Your task to perform on an android device: What's the weather going to be tomorrow? Image 0: 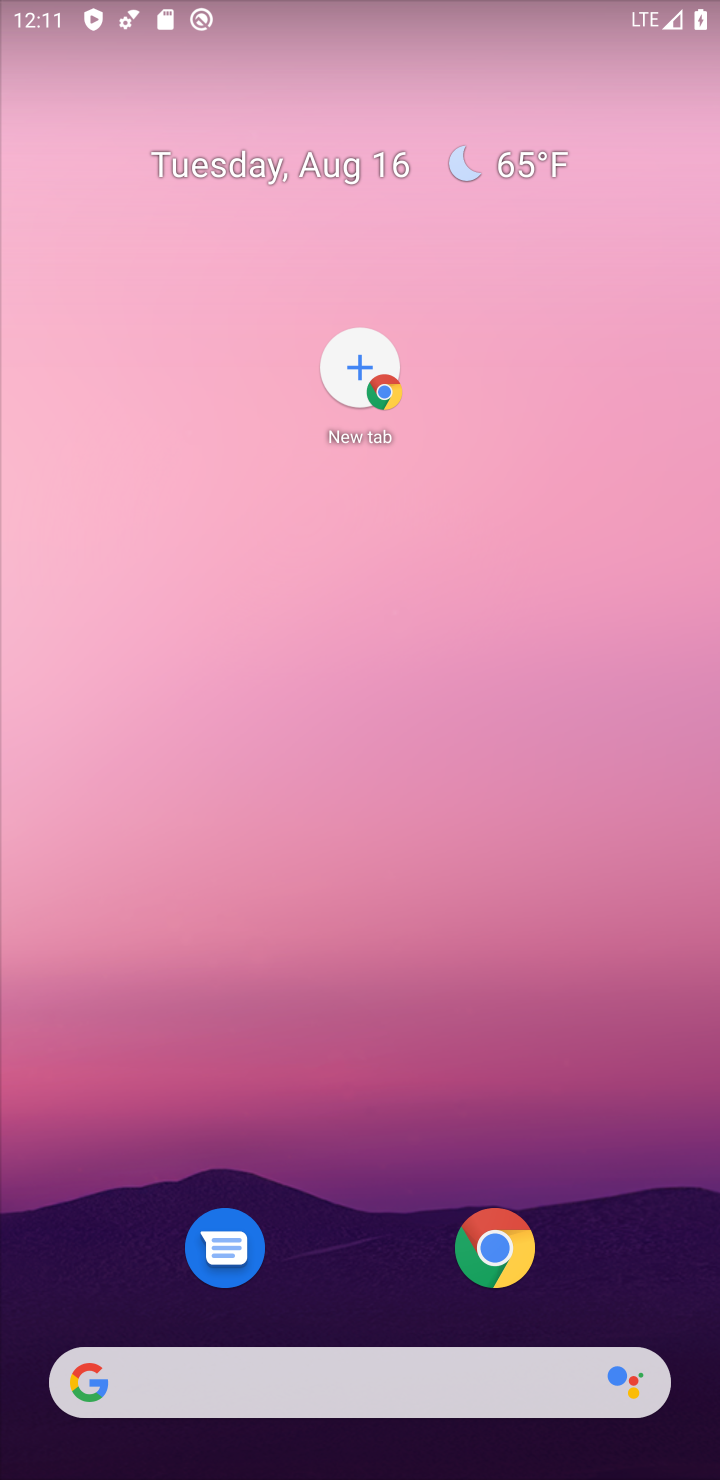
Step 0: drag from (391, 1336) to (448, 130)
Your task to perform on an android device: What's the weather going to be tomorrow? Image 1: 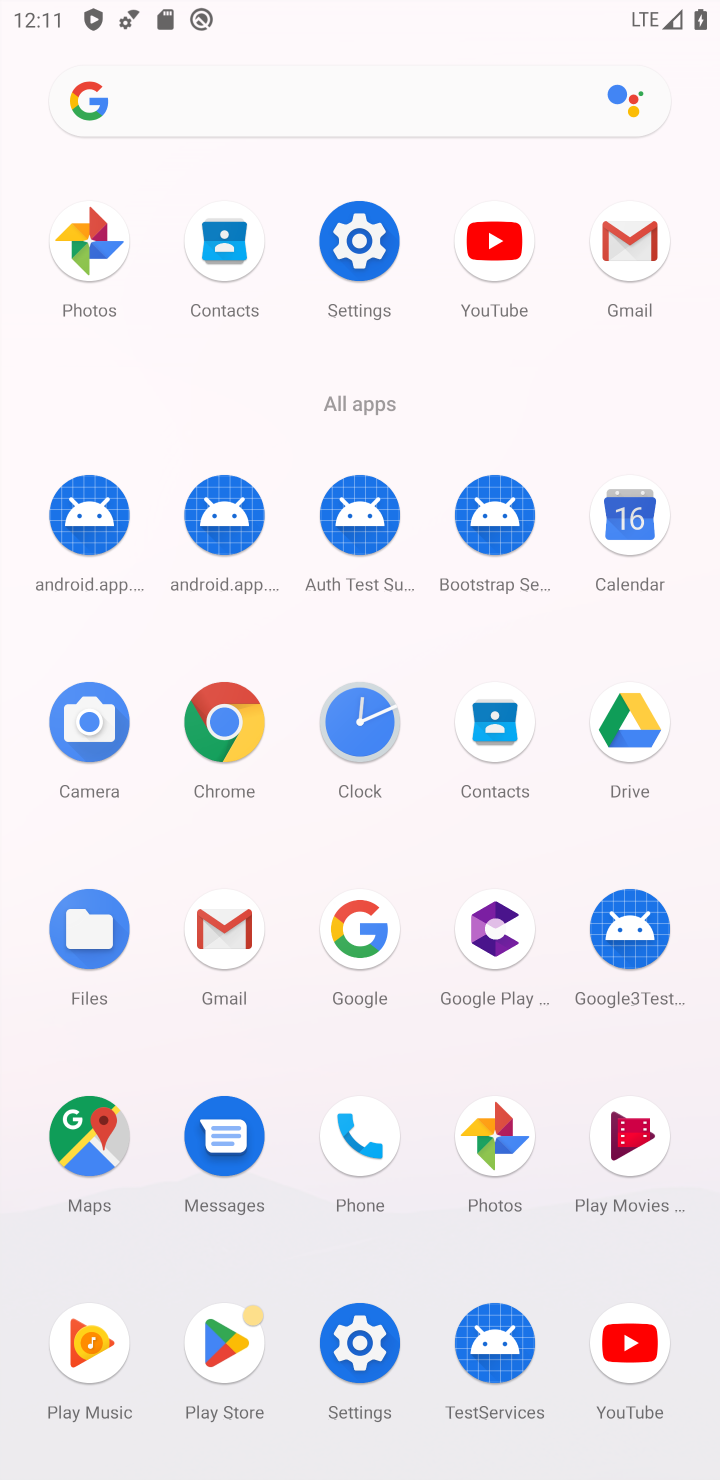
Step 1: click (360, 185)
Your task to perform on an android device: What's the weather going to be tomorrow? Image 2: 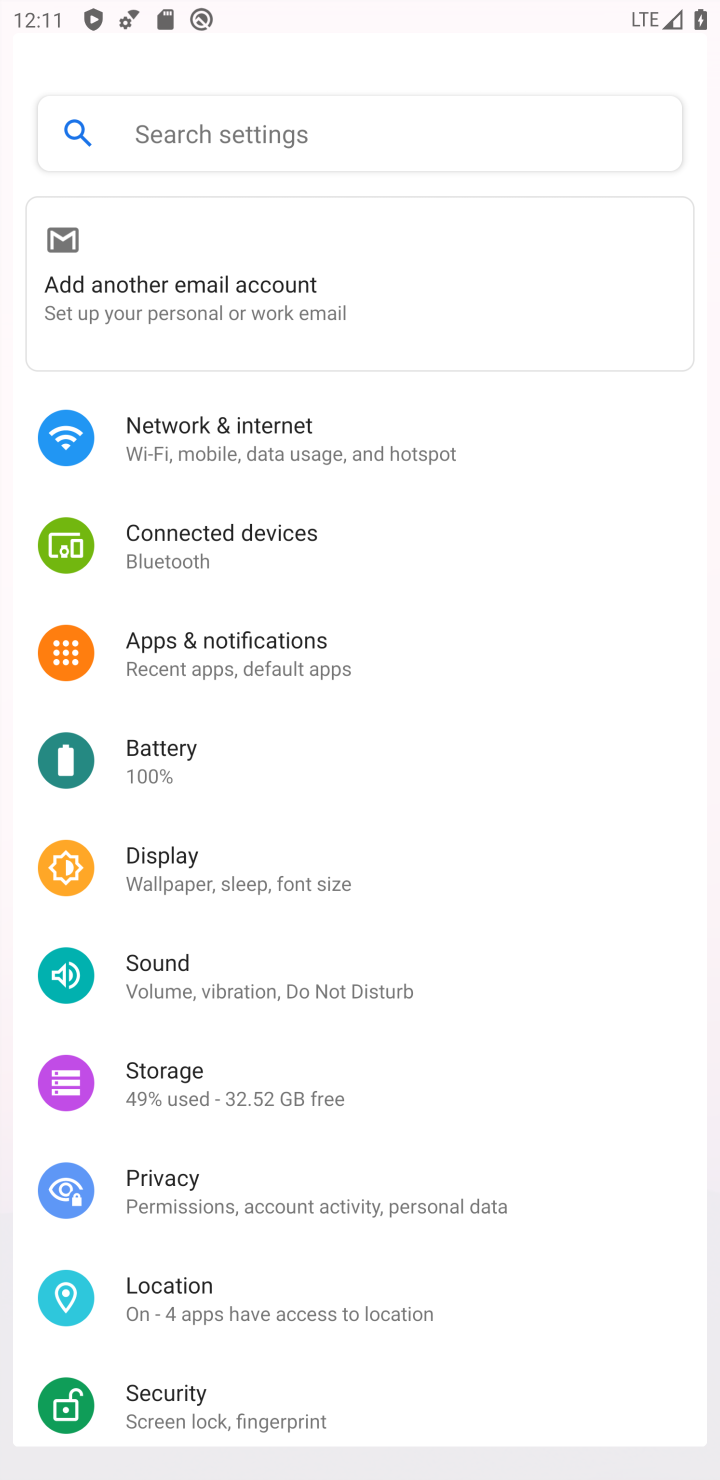
Step 2: click (289, 124)
Your task to perform on an android device: What's the weather going to be tomorrow? Image 3: 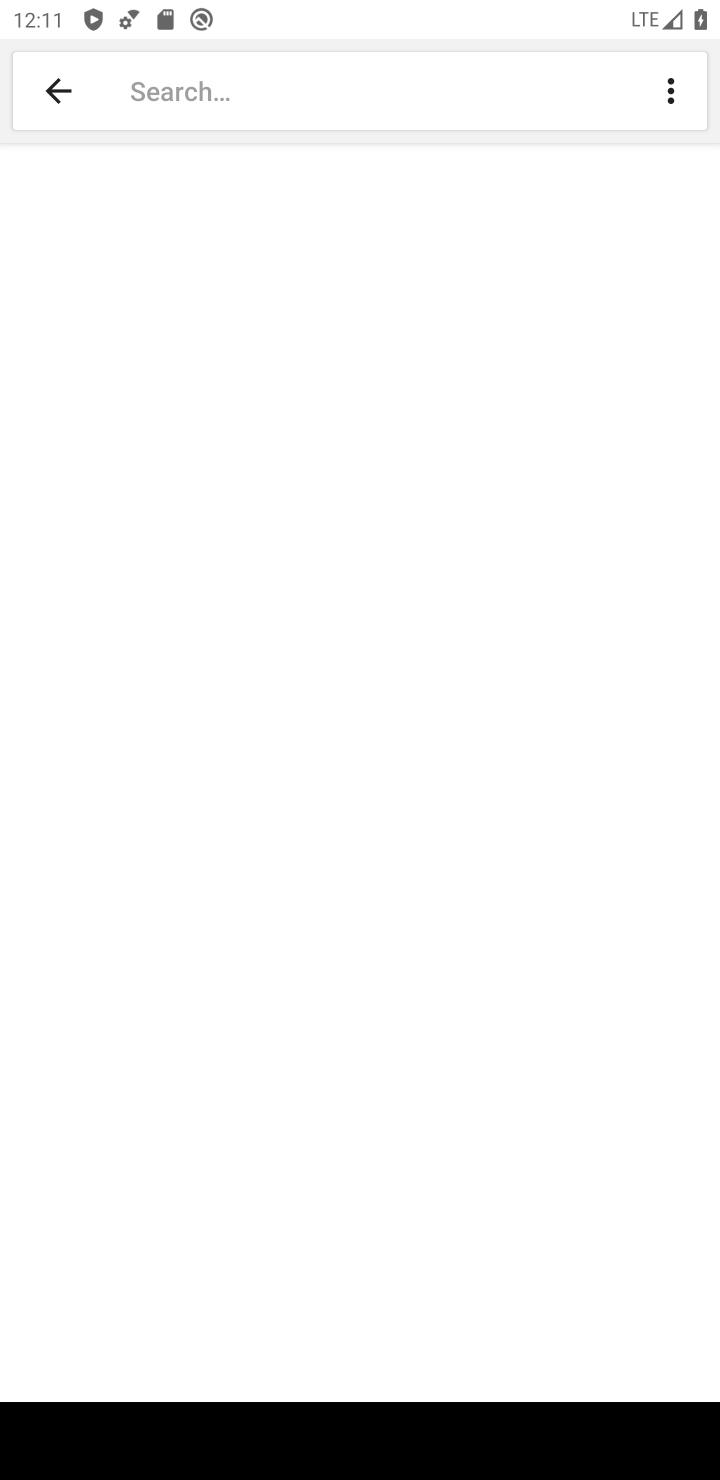
Step 3: click (276, 107)
Your task to perform on an android device: What's the weather going to be tomorrow? Image 4: 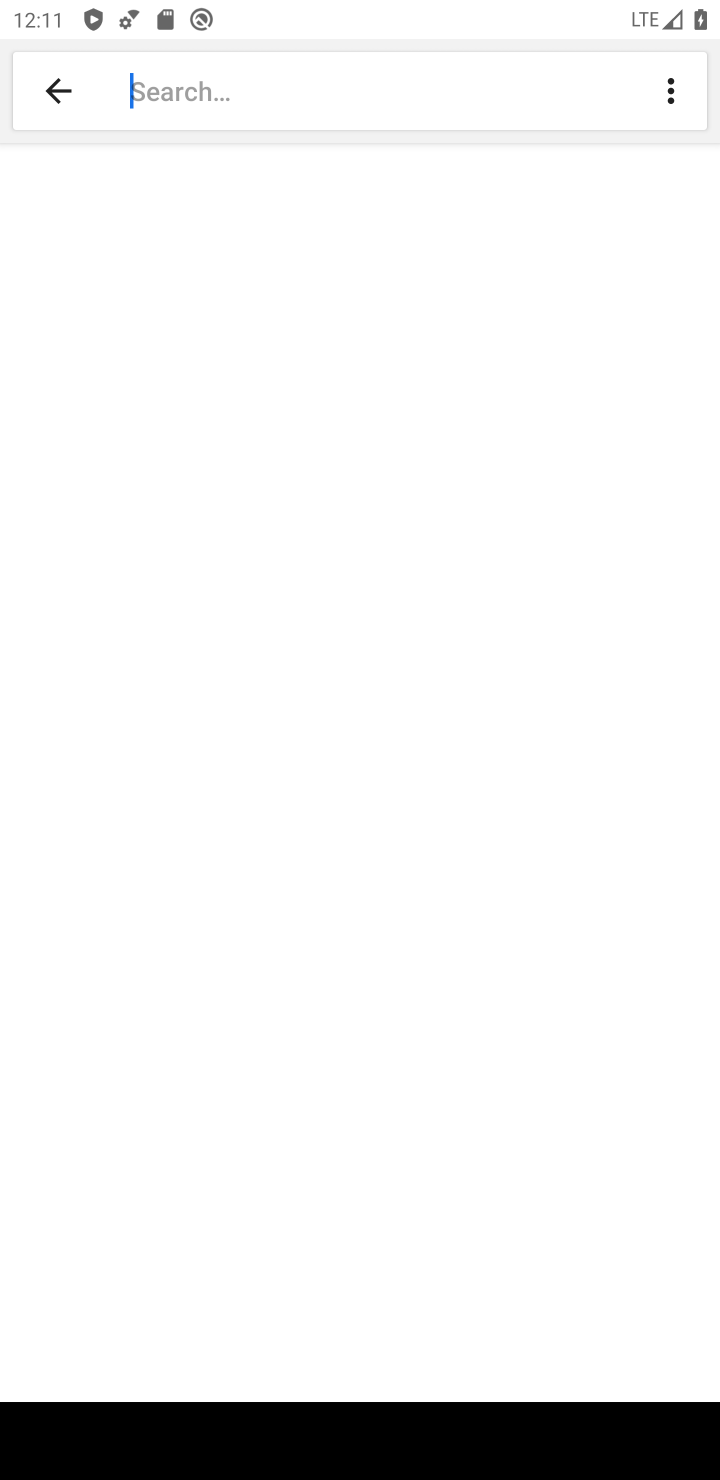
Step 4: type "weather"
Your task to perform on an android device: What's the weather going to be tomorrow? Image 5: 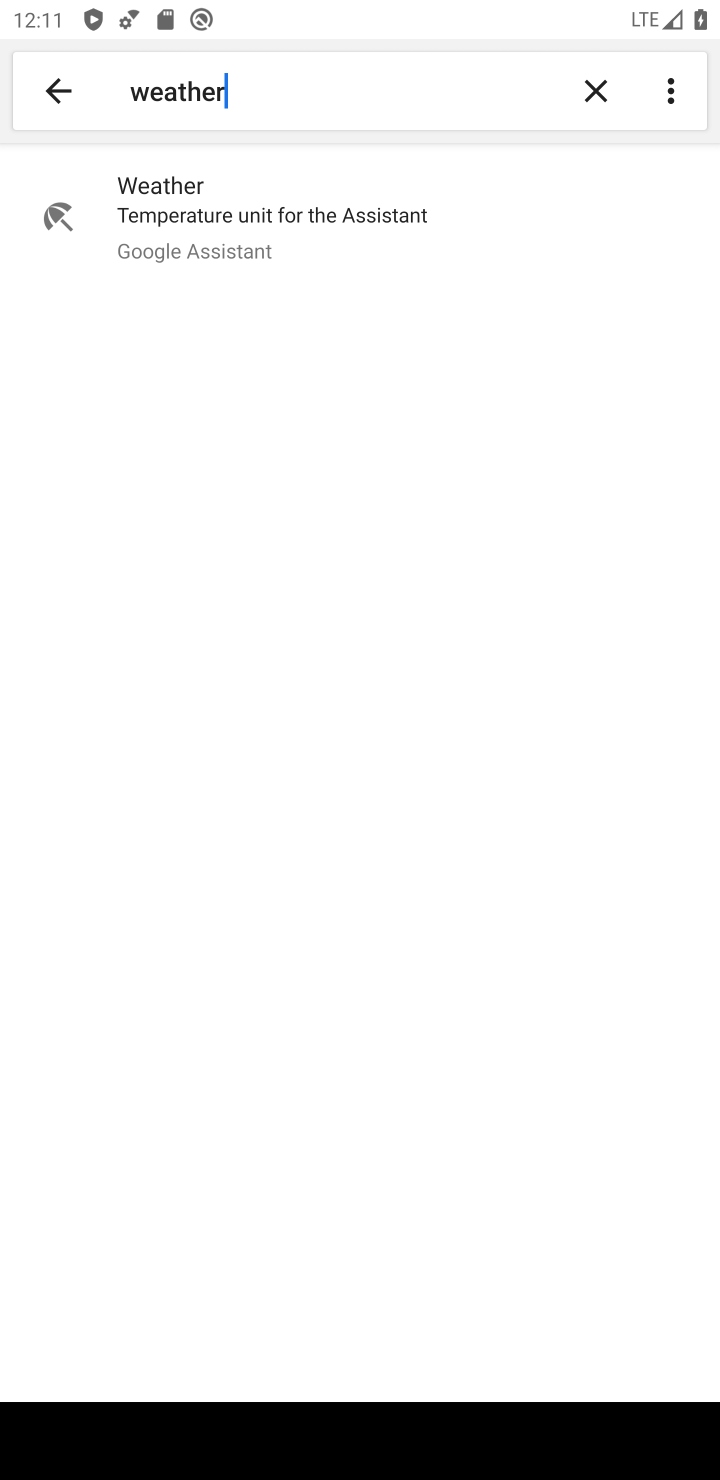
Step 5: click (407, 219)
Your task to perform on an android device: What's the weather going to be tomorrow? Image 6: 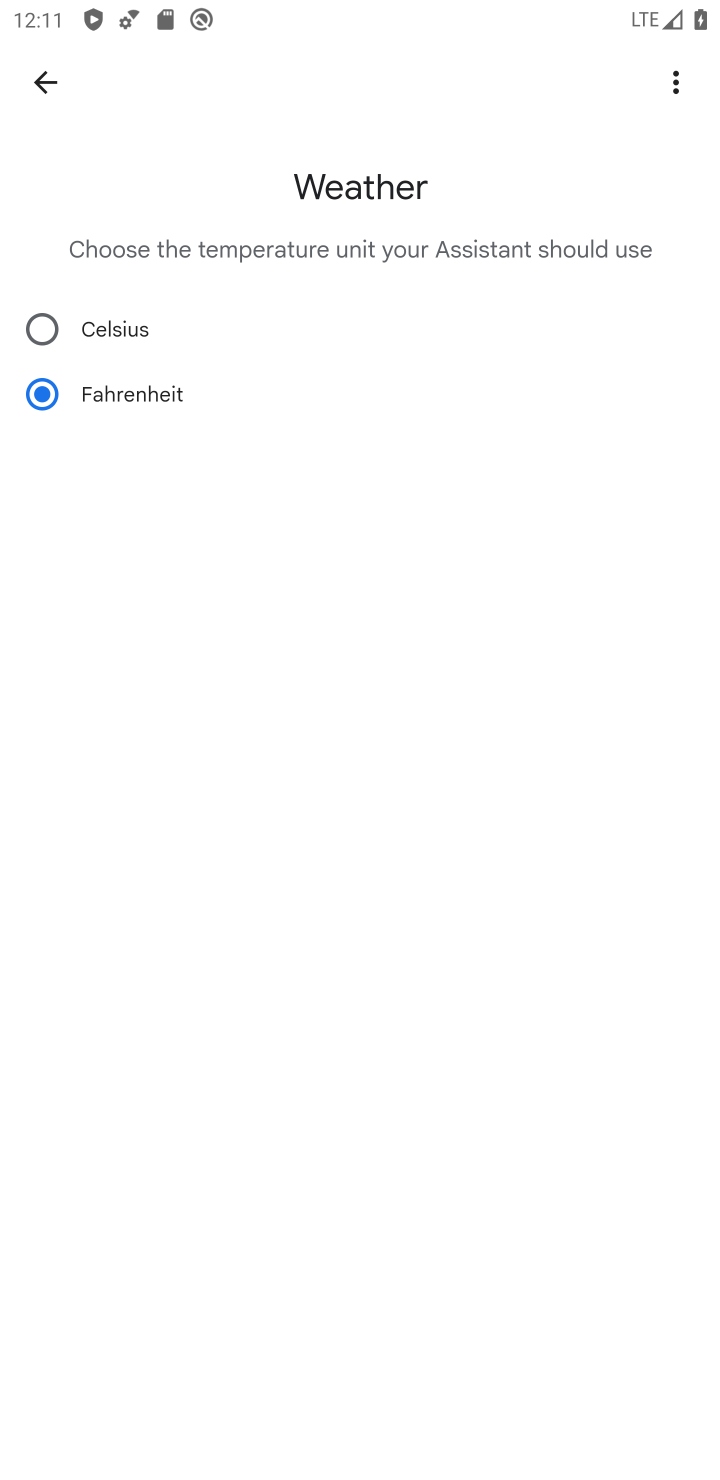
Step 6: click (198, 320)
Your task to perform on an android device: What's the weather going to be tomorrow? Image 7: 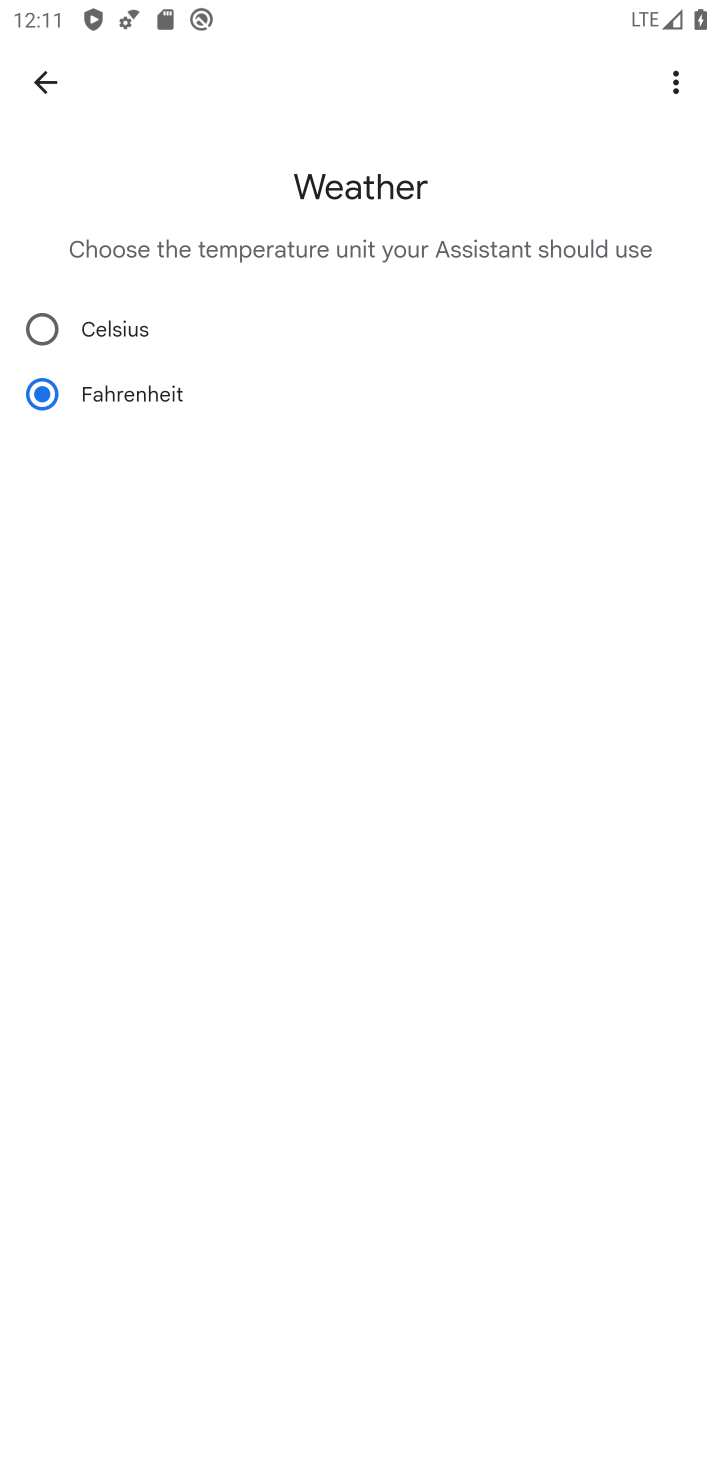
Step 7: click (98, 344)
Your task to perform on an android device: What's the weather going to be tomorrow? Image 8: 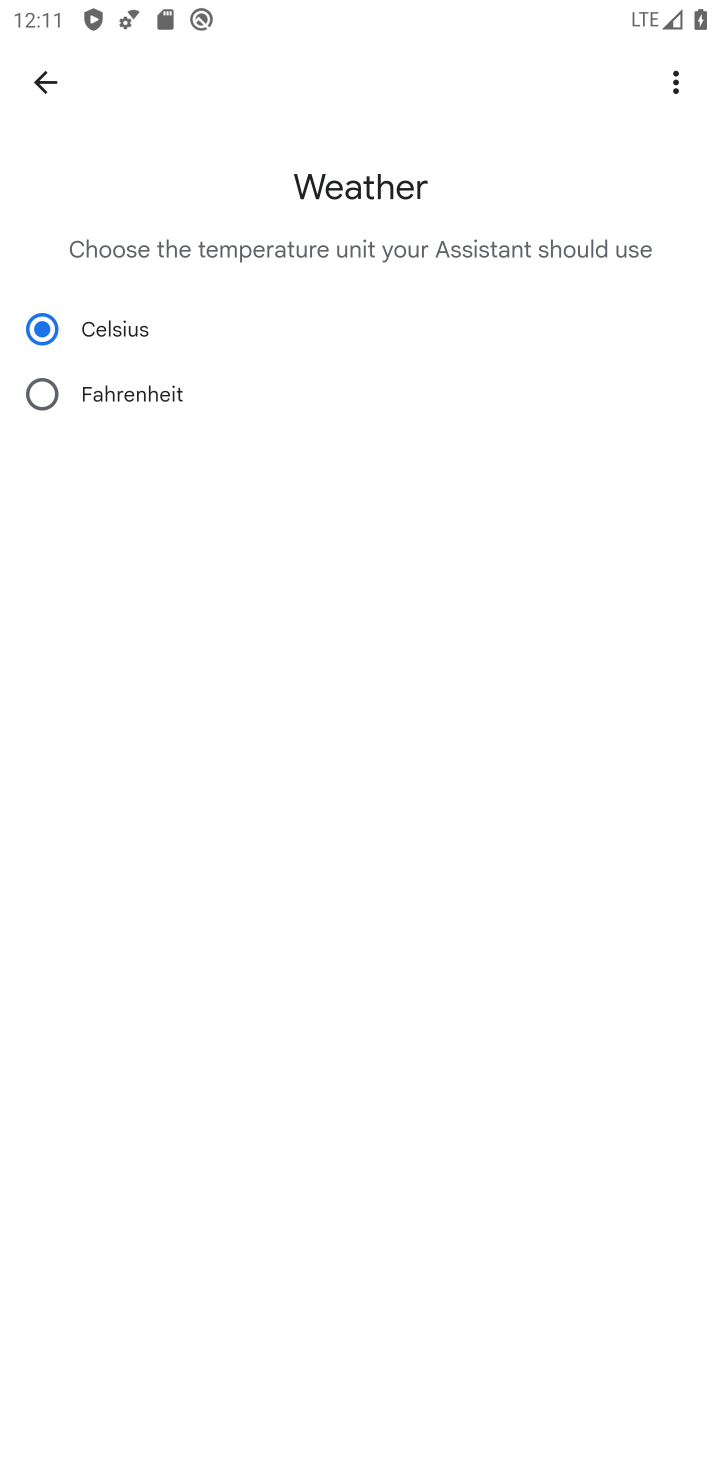
Step 8: task complete